Your task to perform on an android device: Open maps Image 0: 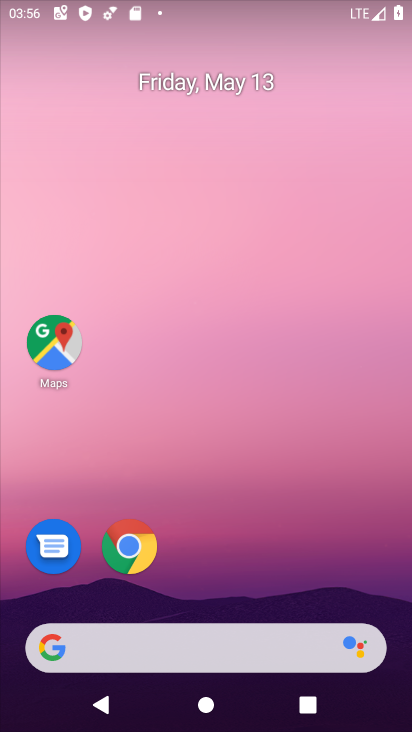
Step 0: click (60, 340)
Your task to perform on an android device: Open maps Image 1: 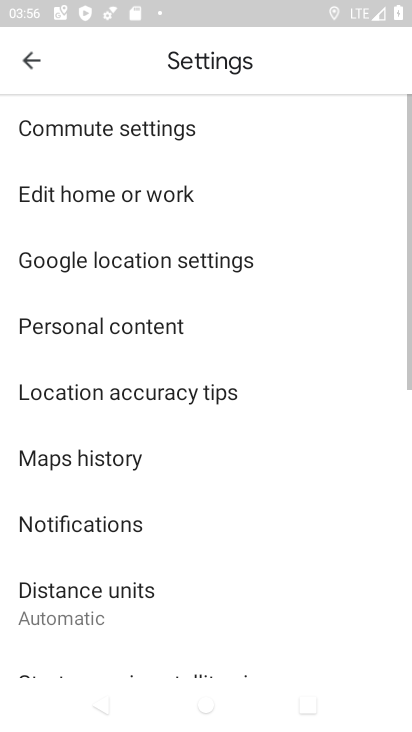
Step 1: click (51, 69)
Your task to perform on an android device: Open maps Image 2: 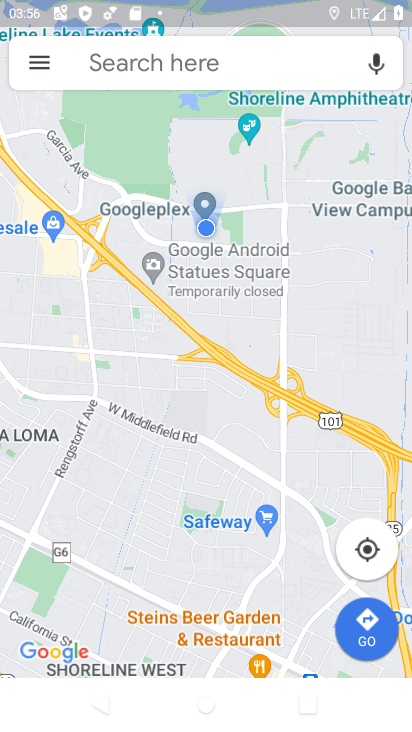
Step 2: task complete